Your task to perform on an android device: Go to settings Image 0: 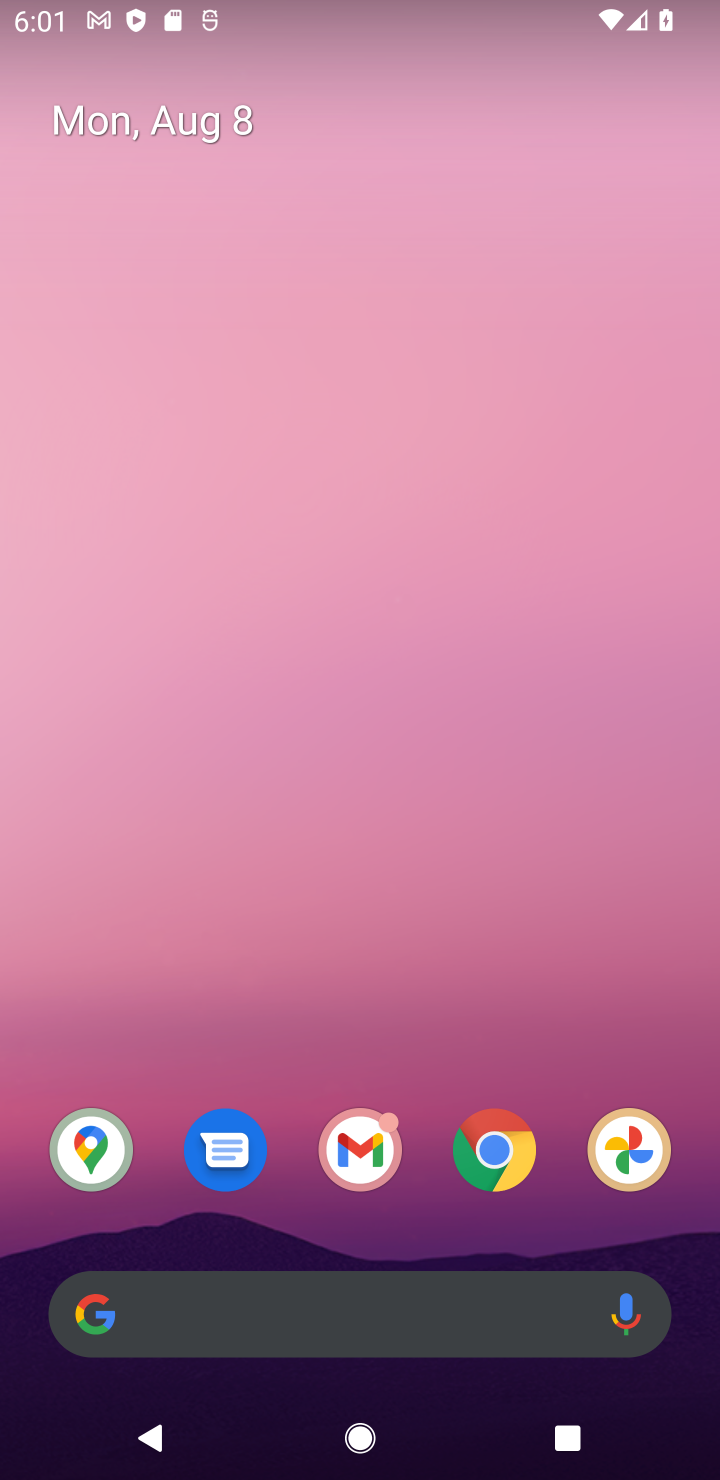
Step 0: drag from (443, 1261) to (359, 373)
Your task to perform on an android device: Go to settings Image 1: 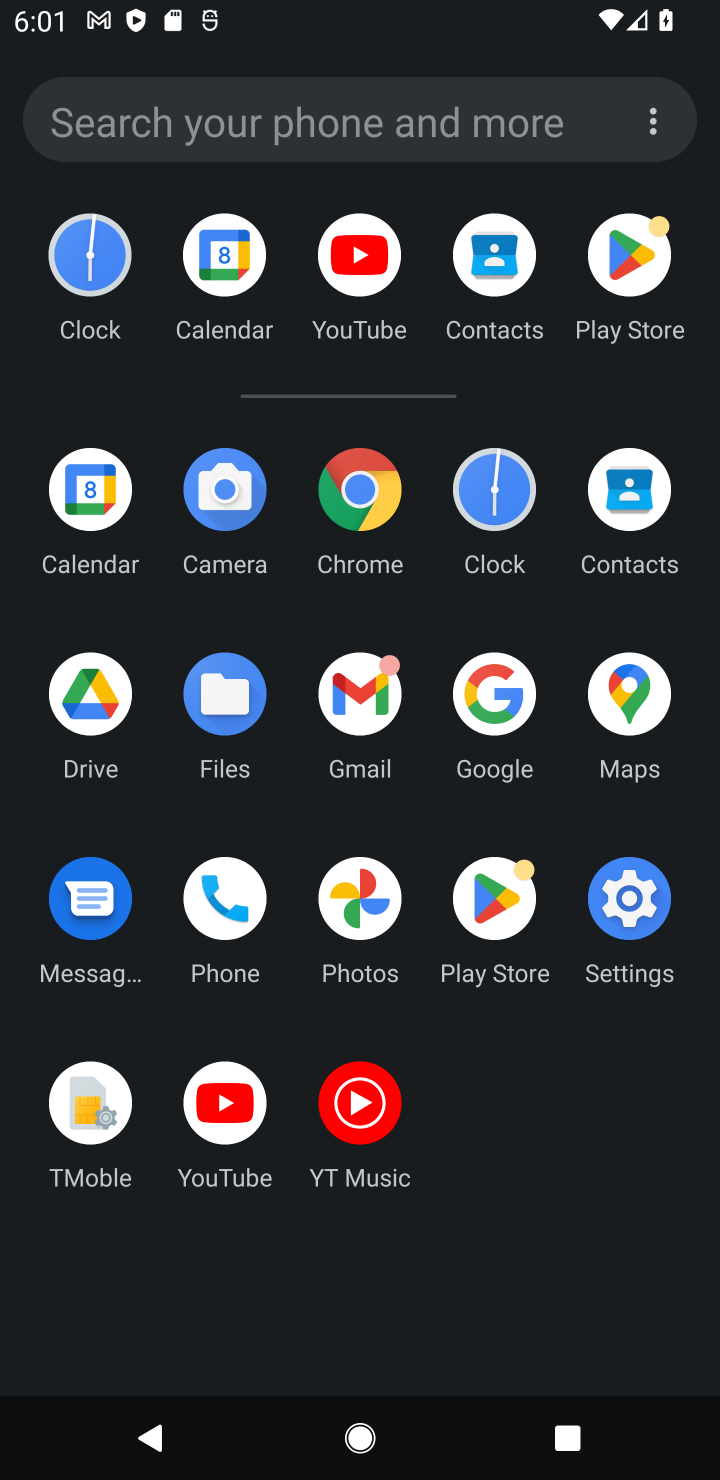
Step 1: click (638, 919)
Your task to perform on an android device: Go to settings Image 2: 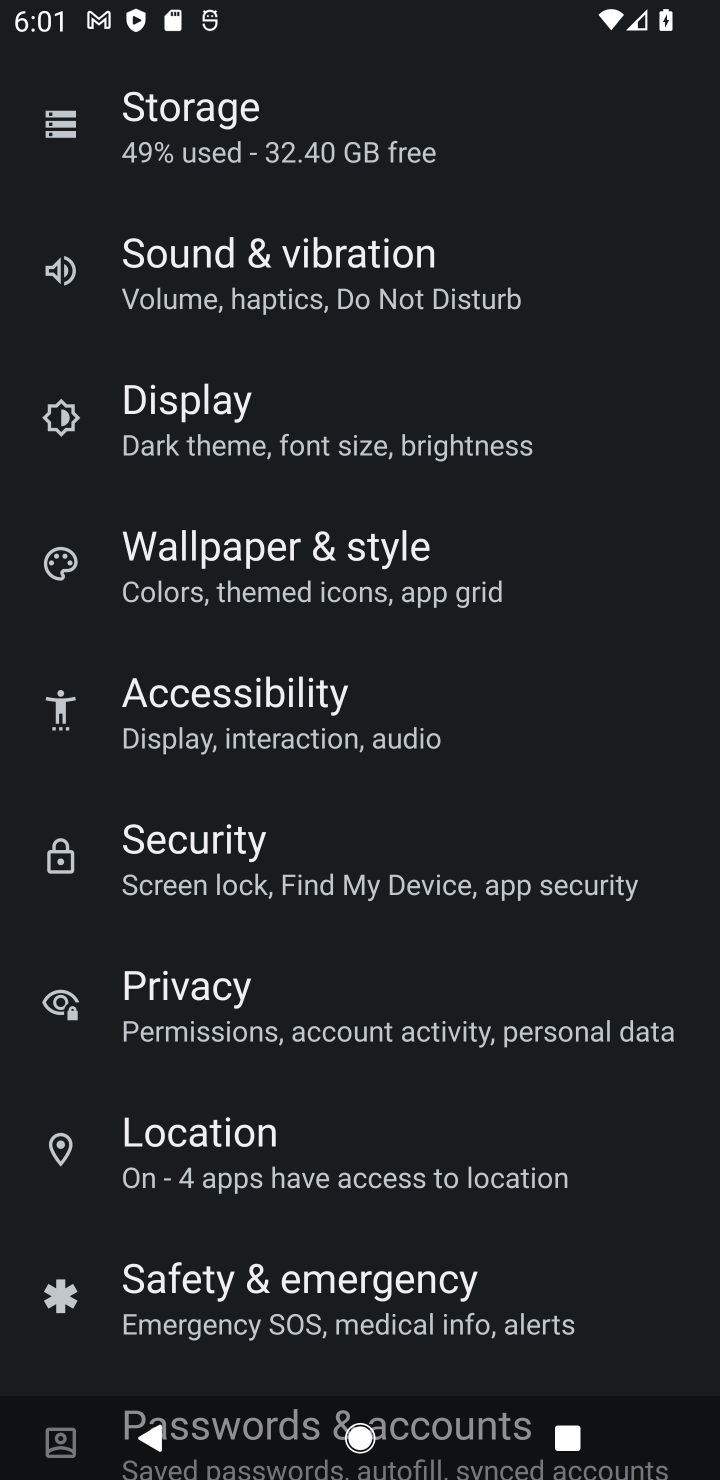
Step 2: task complete